Your task to perform on an android device: turn on sleep mode Image 0: 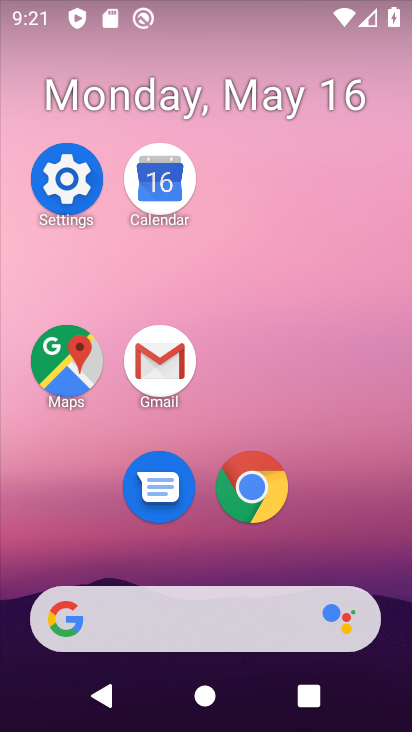
Step 0: click (75, 176)
Your task to perform on an android device: turn on sleep mode Image 1: 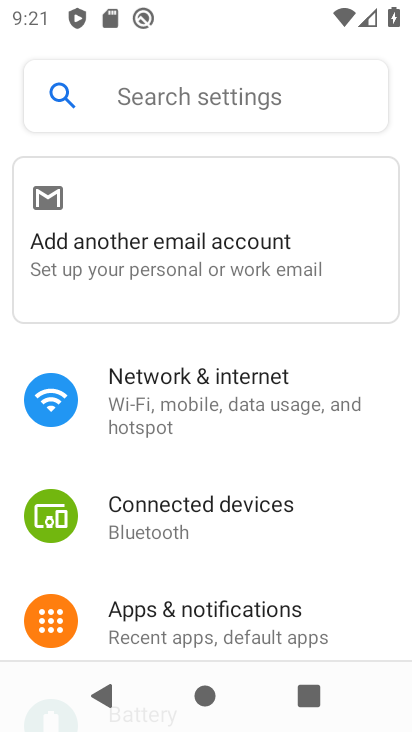
Step 1: drag from (235, 560) to (294, 117)
Your task to perform on an android device: turn on sleep mode Image 2: 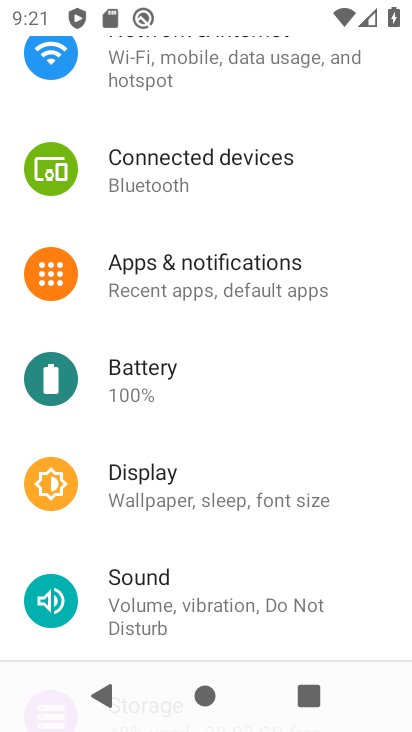
Step 2: click (250, 491)
Your task to perform on an android device: turn on sleep mode Image 3: 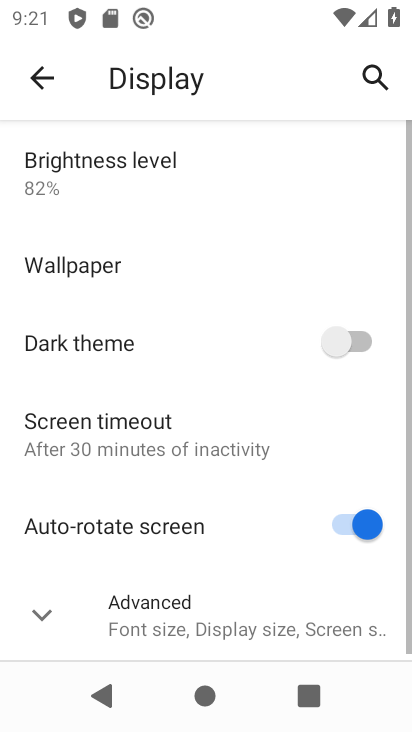
Step 3: click (207, 436)
Your task to perform on an android device: turn on sleep mode Image 4: 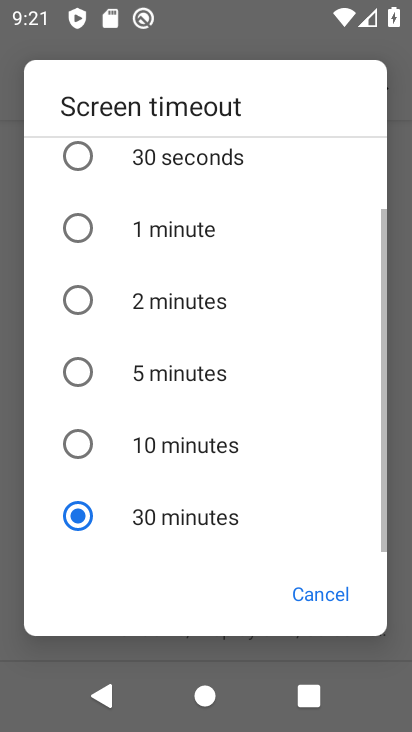
Step 4: task complete